Your task to perform on an android device: turn on bluetooth scan Image 0: 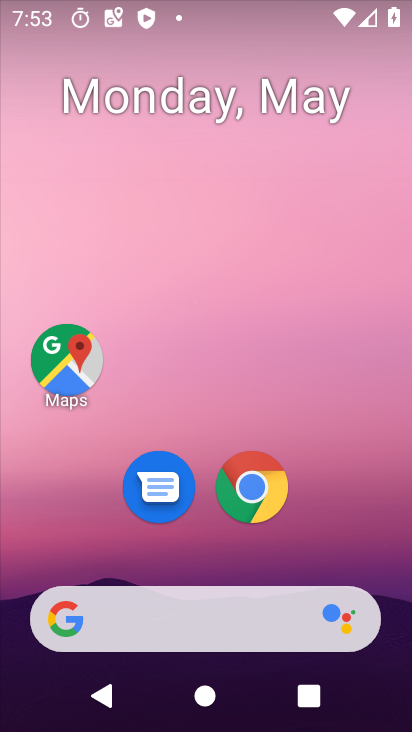
Step 0: press home button
Your task to perform on an android device: turn on bluetooth scan Image 1: 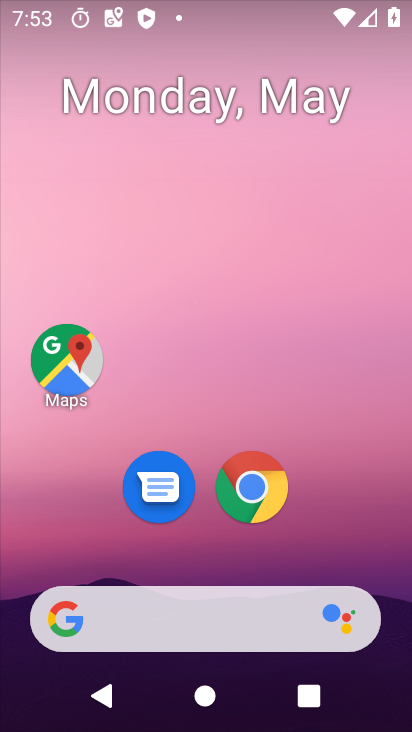
Step 1: drag from (289, 650) to (228, 22)
Your task to perform on an android device: turn on bluetooth scan Image 2: 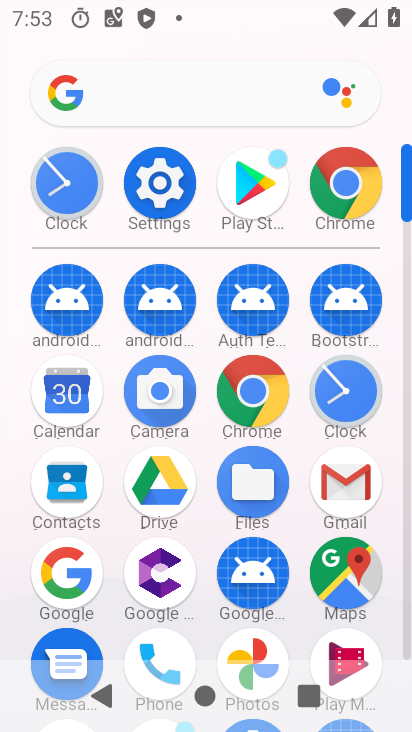
Step 2: click (150, 185)
Your task to perform on an android device: turn on bluetooth scan Image 3: 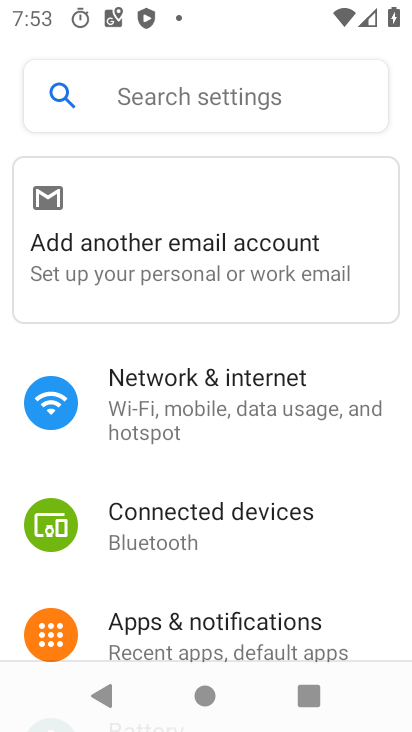
Step 3: click (174, 111)
Your task to perform on an android device: turn on bluetooth scan Image 4: 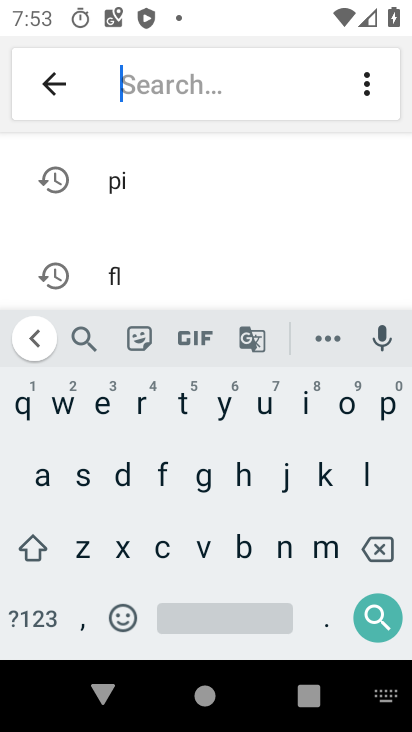
Step 4: click (361, 463)
Your task to perform on an android device: turn on bluetooth scan Image 5: 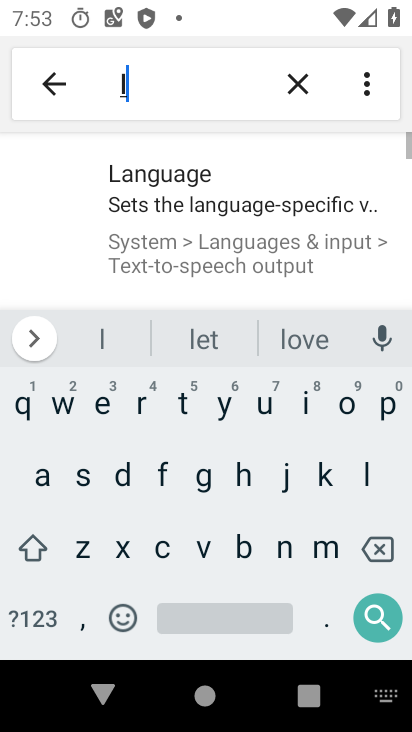
Step 5: click (344, 406)
Your task to perform on an android device: turn on bluetooth scan Image 6: 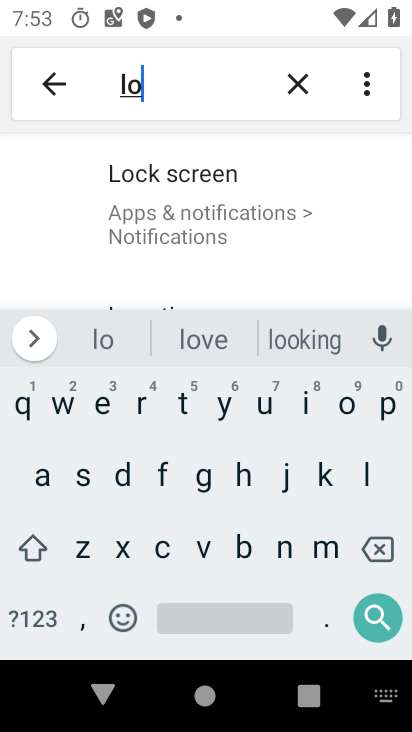
Step 6: click (228, 200)
Your task to perform on an android device: turn on bluetooth scan Image 7: 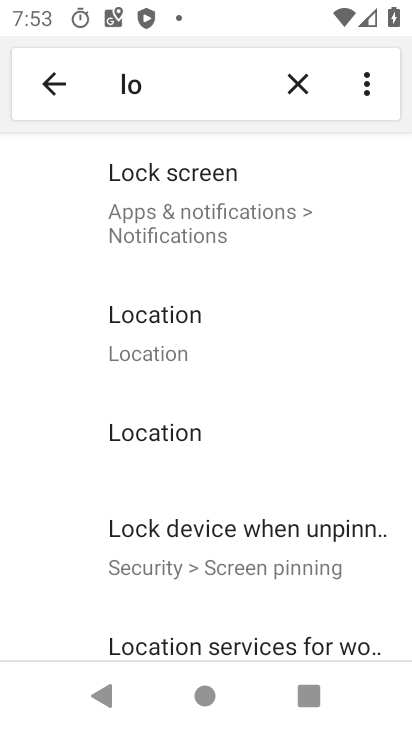
Step 7: click (161, 343)
Your task to perform on an android device: turn on bluetooth scan Image 8: 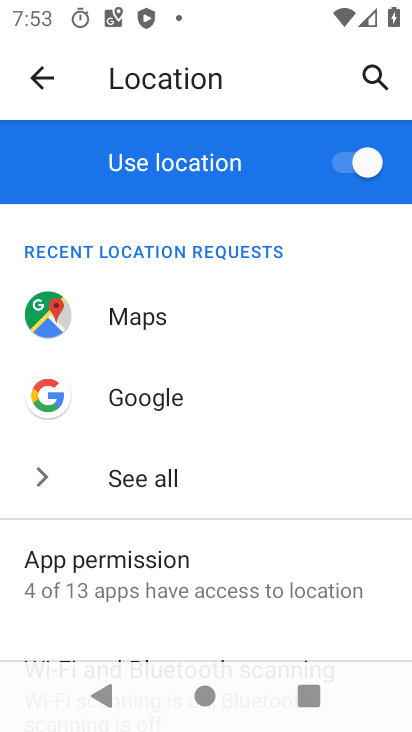
Step 8: drag from (184, 569) to (168, 347)
Your task to perform on an android device: turn on bluetooth scan Image 9: 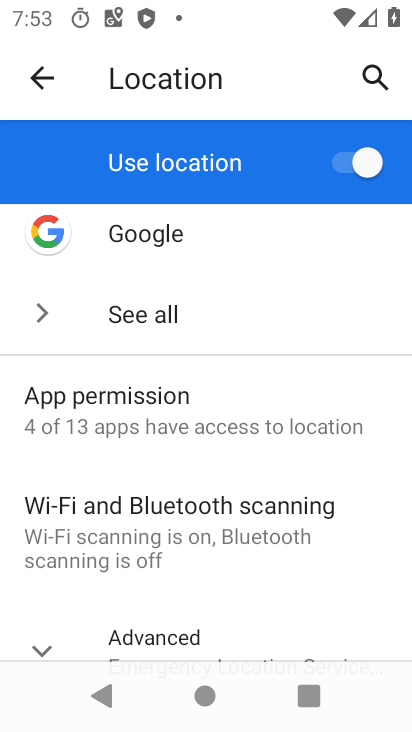
Step 9: click (124, 515)
Your task to perform on an android device: turn on bluetooth scan Image 10: 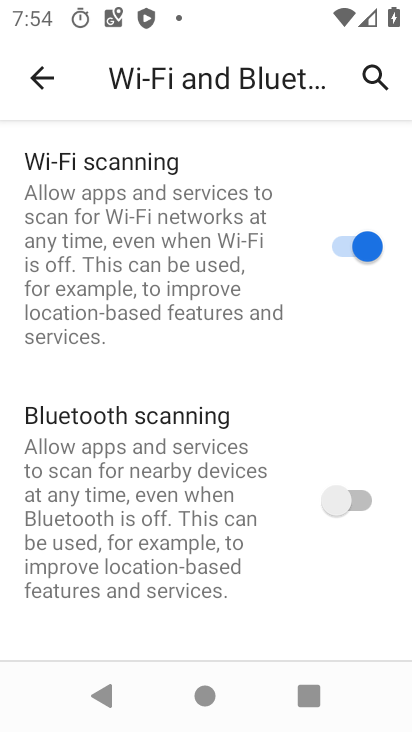
Step 10: click (348, 493)
Your task to perform on an android device: turn on bluetooth scan Image 11: 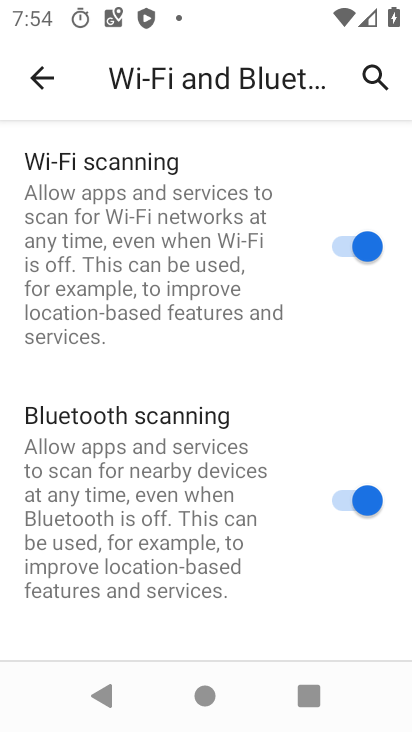
Step 11: task complete